Your task to perform on an android device: Open Google Chrome and open the bookmarks view Image 0: 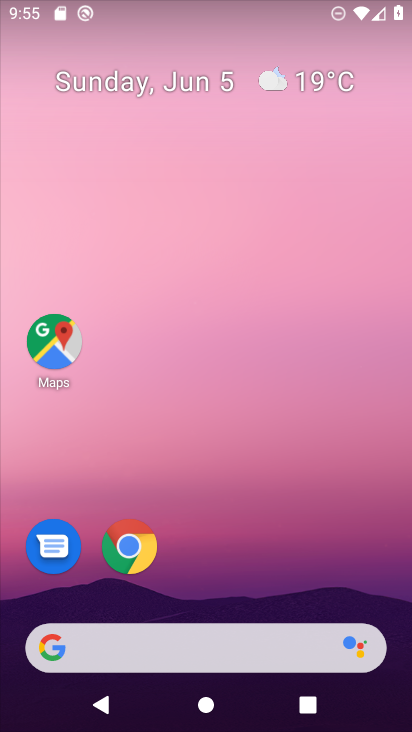
Step 0: click (127, 567)
Your task to perform on an android device: Open Google Chrome and open the bookmarks view Image 1: 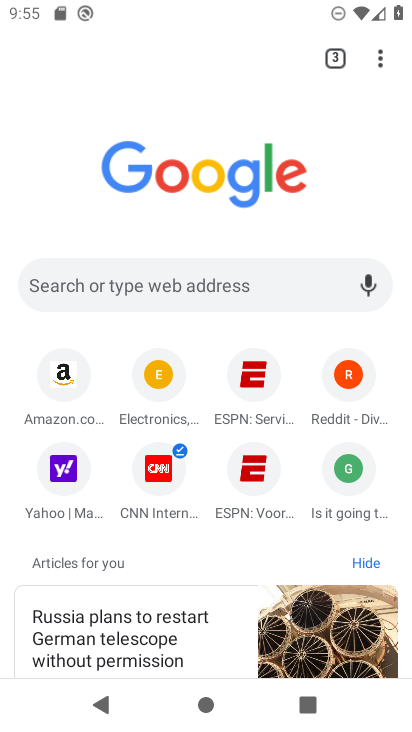
Step 1: click (376, 63)
Your task to perform on an android device: Open Google Chrome and open the bookmarks view Image 2: 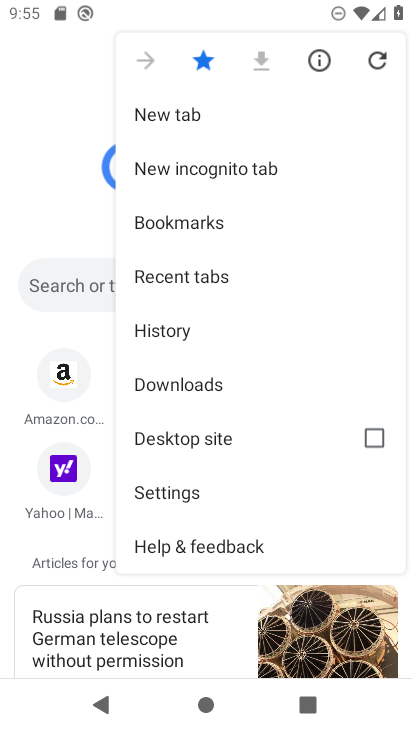
Step 2: click (175, 484)
Your task to perform on an android device: Open Google Chrome and open the bookmarks view Image 3: 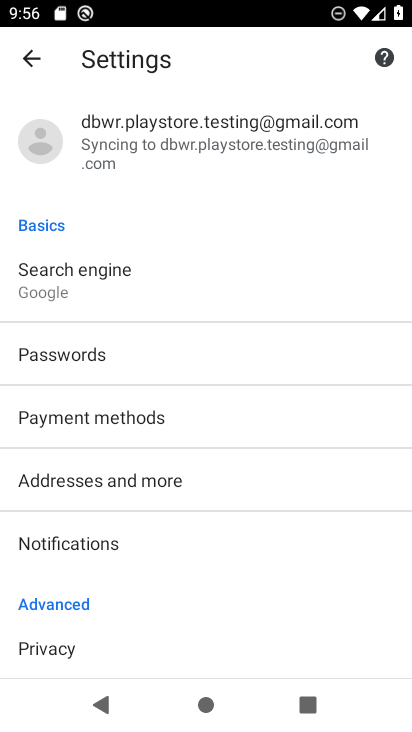
Step 3: drag from (205, 529) to (202, 184)
Your task to perform on an android device: Open Google Chrome and open the bookmarks view Image 4: 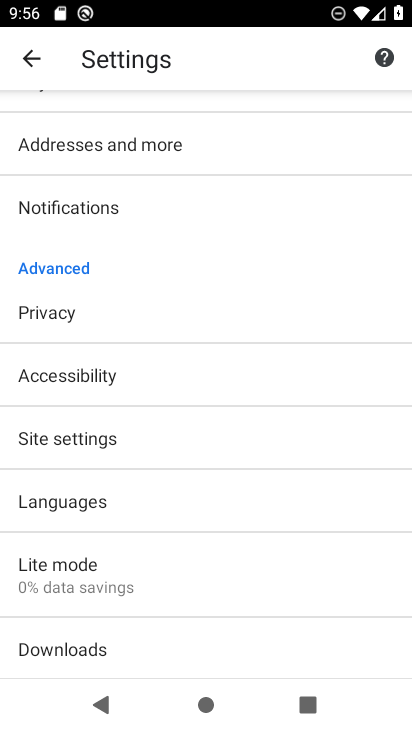
Step 4: click (32, 64)
Your task to perform on an android device: Open Google Chrome and open the bookmarks view Image 5: 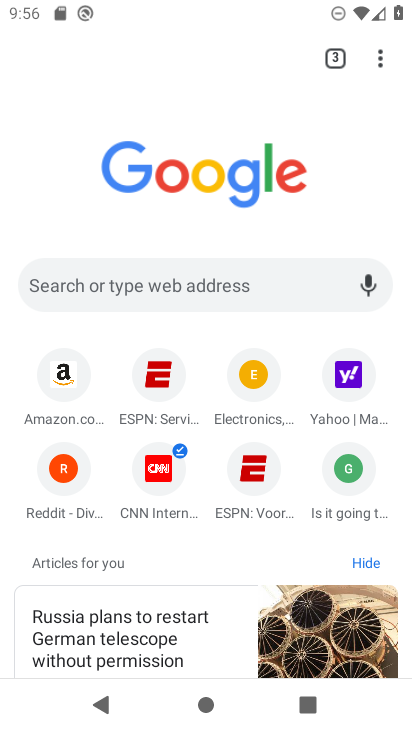
Step 5: click (382, 65)
Your task to perform on an android device: Open Google Chrome and open the bookmarks view Image 6: 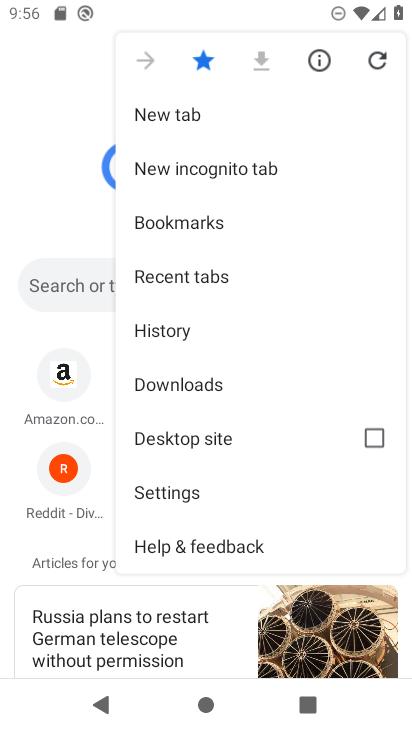
Step 6: click (186, 213)
Your task to perform on an android device: Open Google Chrome and open the bookmarks view Image 7: 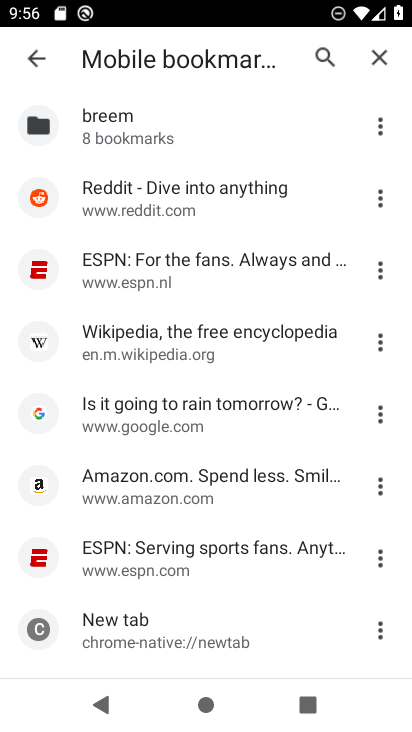
Step 7: task complete